Your task to perform on an android device: Open Google Chrome Image 0: 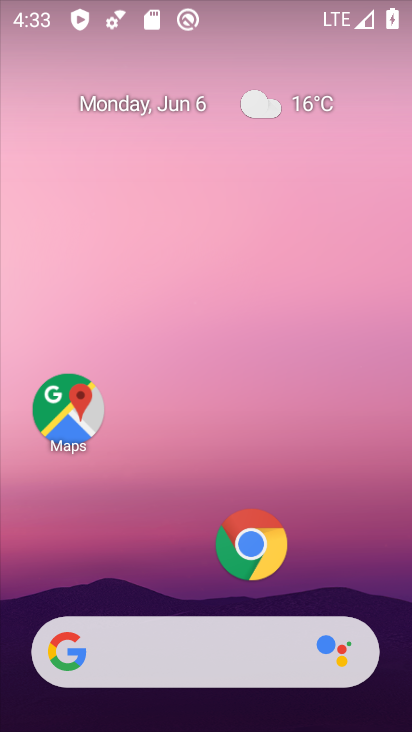
Step 0: click (248, 537)
Your task to perform on an android device: Open Google Chrome Image 1: 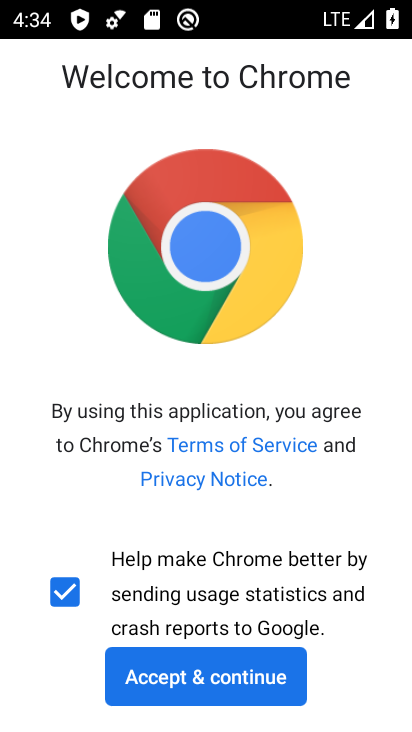
Step 1: click (199, 671)
Your task to perform on an android device: Open Google Chrome Image 2: 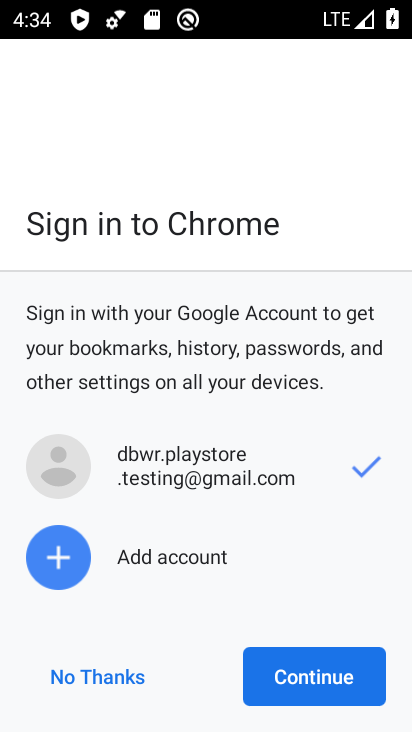
Step 2: click (317, 672)
Your task to perform on an android device: Open Google Chrome Image 3: 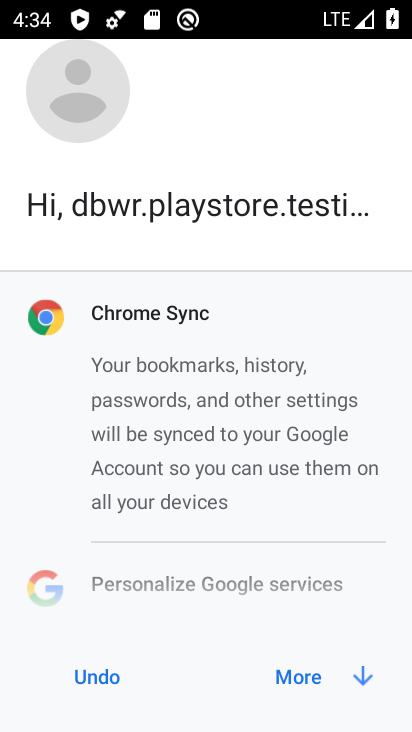
Step 3: click (311, 674)
Your task to perform on an android device: Open Google Chrome Image 4: 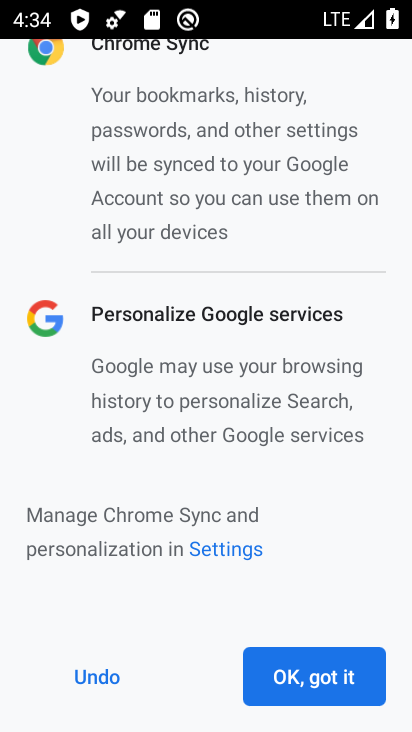
Step 4: click (306, 678)
Your task to perform on an android device: Open Google Chrome Image 5: 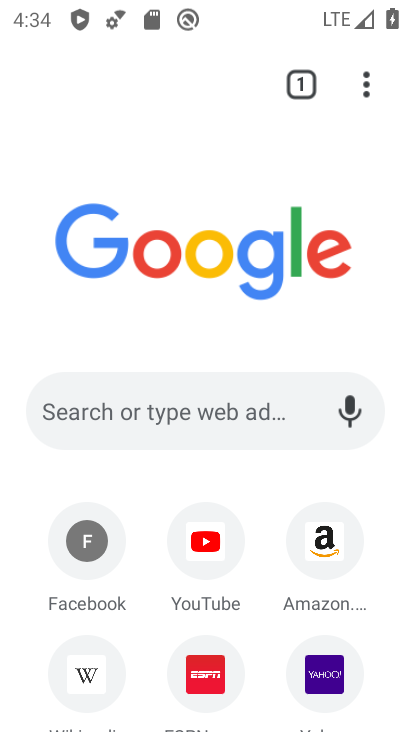
Step 5: task complete